Your task to perform on an android device: snooze an email in the gmail app Image 0: 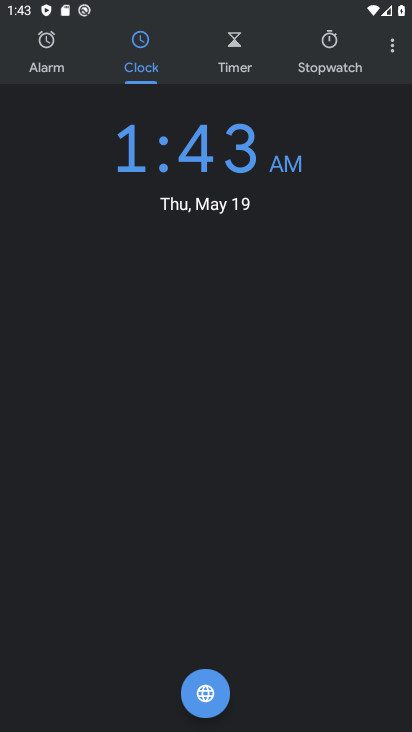
Step 0: press back button
Your task to perform on an android device: snooze an email in the gmail app Image 1: 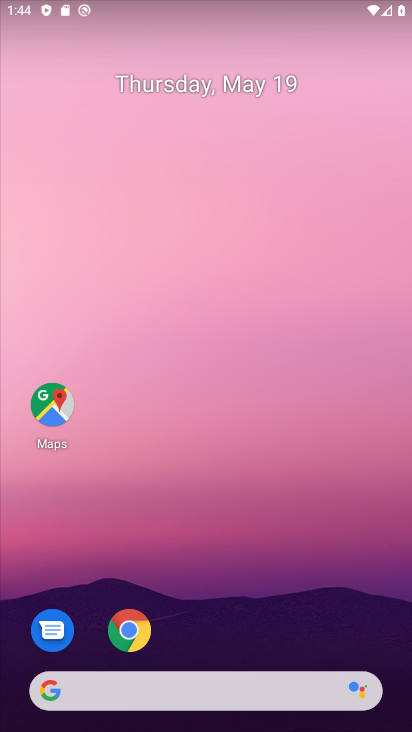
Step 1: drag from (198, 439) to (198, 48)
Your task to perform on an android device: snooze an email in the gmail app Image 2: 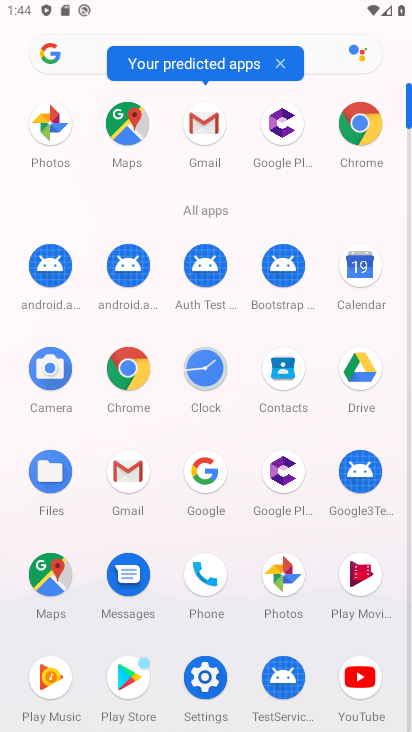
Step 2: drag from (9, 568) to (21, 240)
Your task to perform on an android device: snooze an email in the gmail app Image 3: 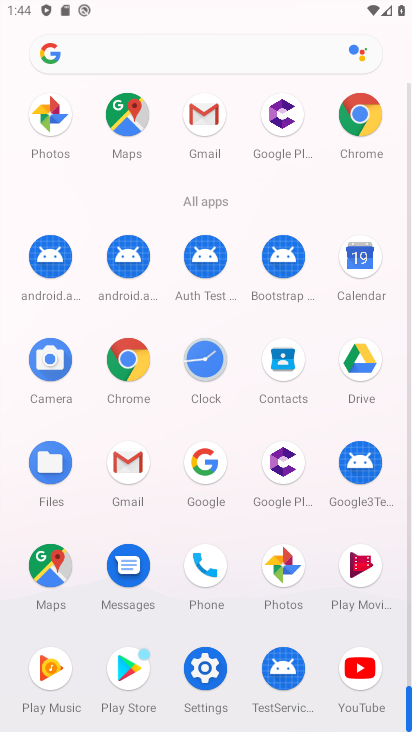
Step 3: click (127, 444)
Your task to perform on an android device: snooze an email in the gmail app Image 4: 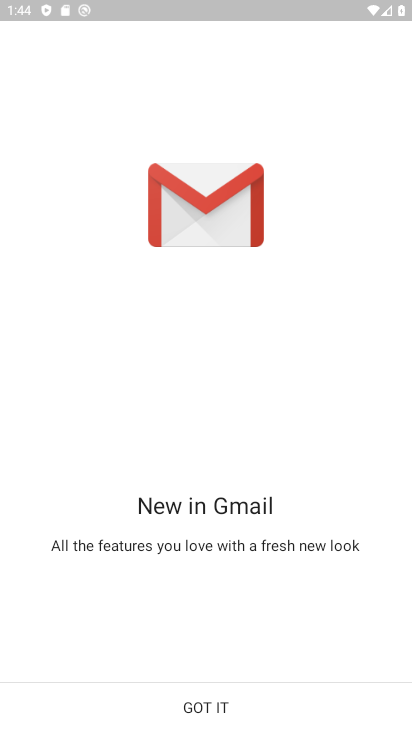
Step 4: click (257, 709)
Your task to perform on an android device: snooze an email in the gmail app Image 5: 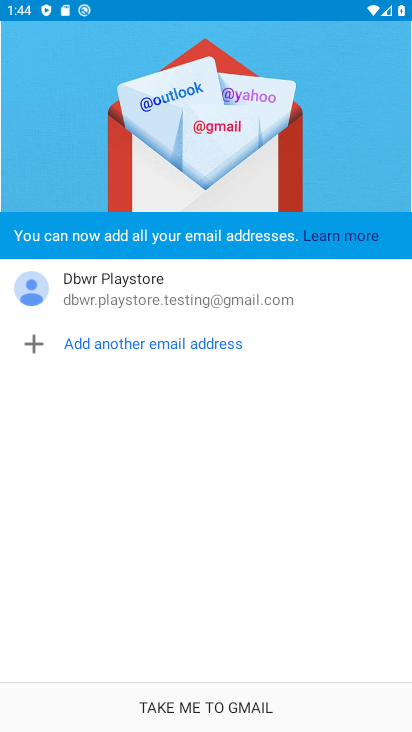
Step 5: click (253, 699)
Your task to perform on an android device: snooze an email in the gmail app Image 6: 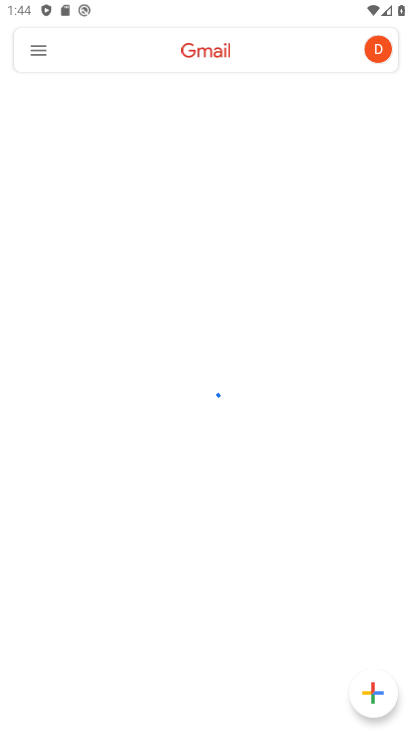
Step 6: click (44, 41)
Your task to perform on an android device: snooze an email in the gmail app Image 7: 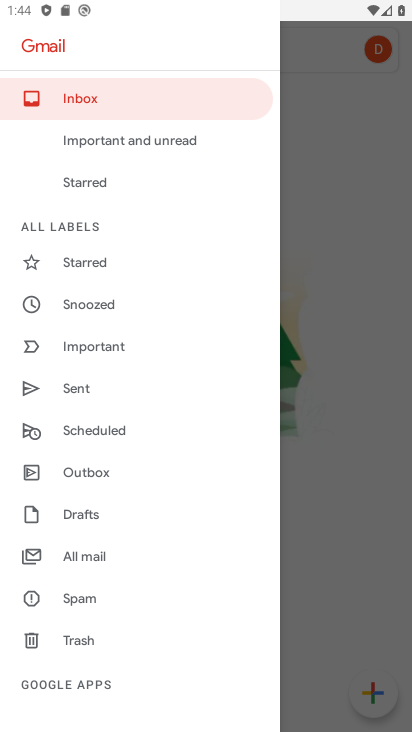
Step 7: click (115, 302)
Your task to perform on an android device: snooze an email in the gmail app Image 8: 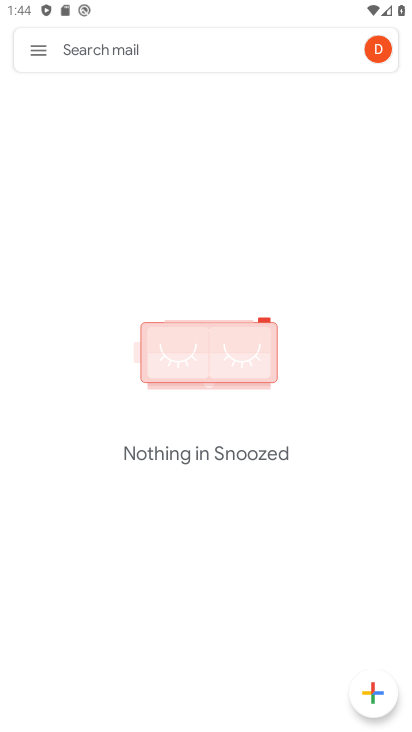
Step 8: click (31, 53)
Your task to perform on an android device: snooze an email in the gmail app Image 9: 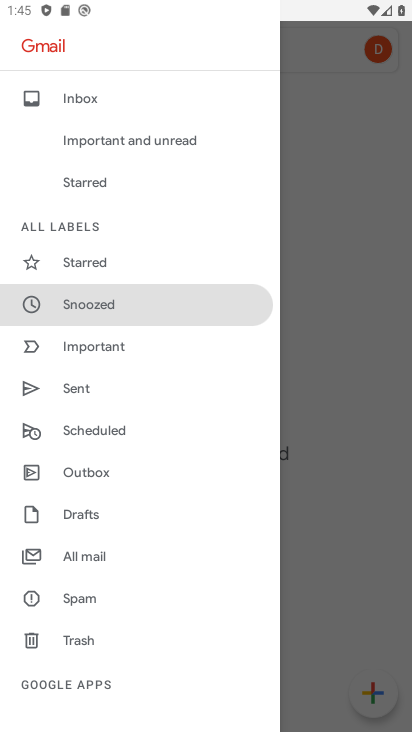
Step 9: click (127, 79)
Your task to perform on an android device: snooze an email in the gmail app Image 10: 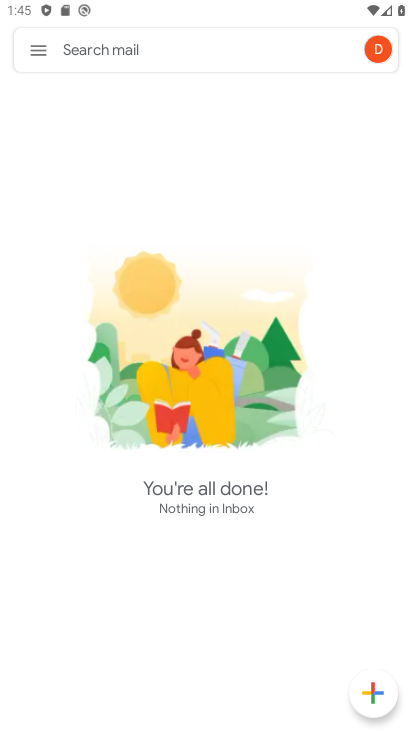
Step 10: click (29, 52)
Your task to perform on an android device: snooze an email in the gmail app Image 11: 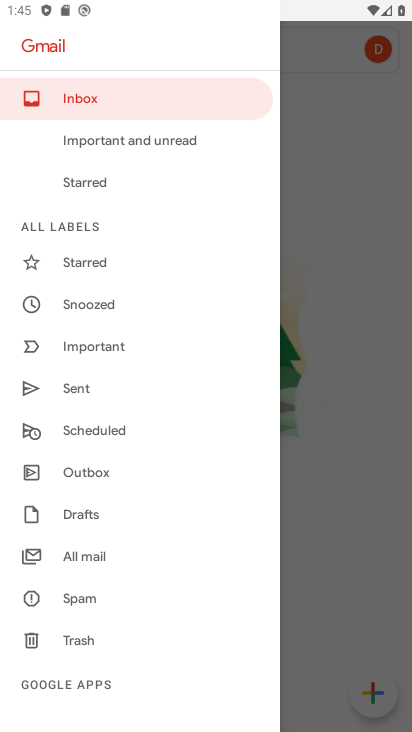
Step 11: click (104, 548)
Your task to perform on an android device: snooze an email in the gmail app Image 12: 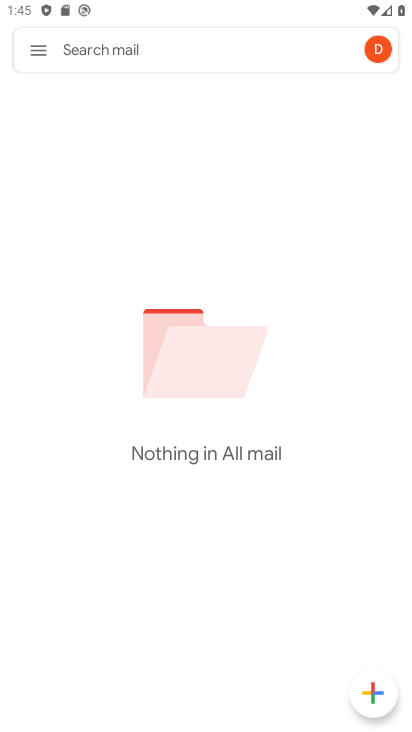
Step 12: task complete